Your task to perform on an android device: Search for vegetarian restaurants on Maps Image 0: 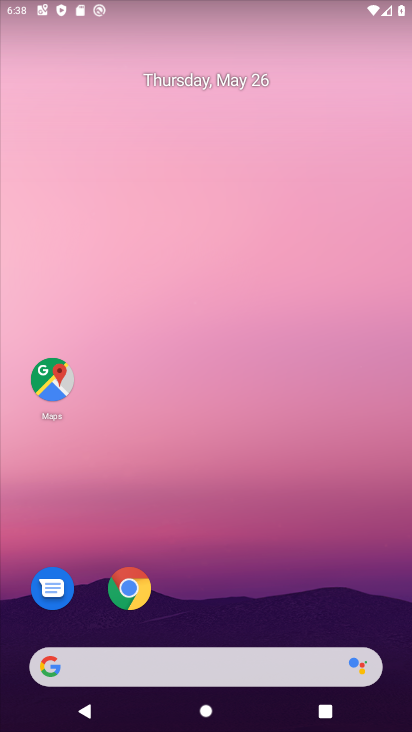
Step 0: drag from (335, 606) to (285, 15)
Your task to perform on an android device: Search for vegetarian restaurants on Maps Image 1: 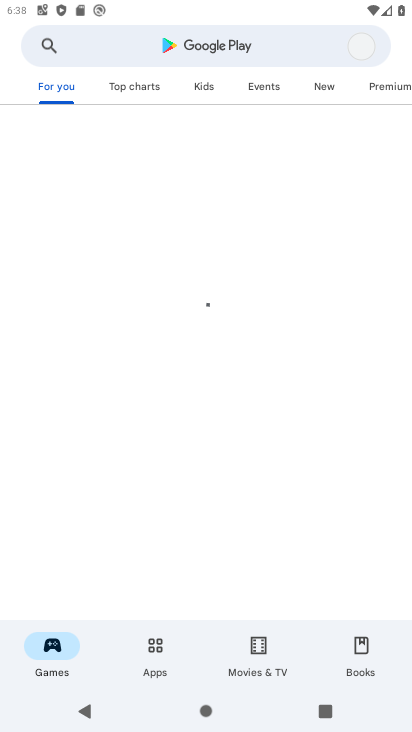
Step 1: press back button
Your task to perform on an android device: Search for vegetarian restaurants on Maps Image 2: 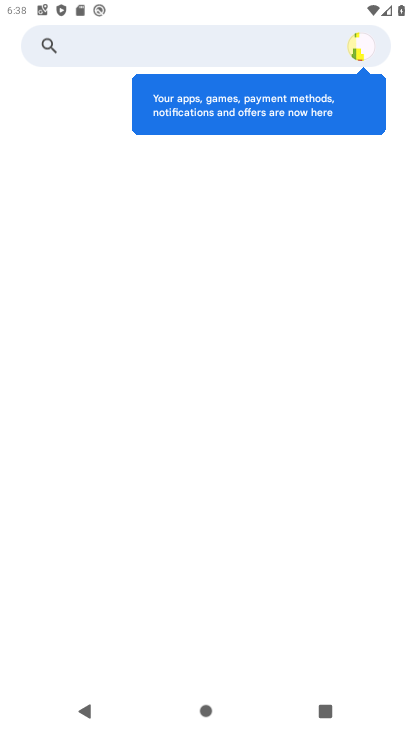
Step 2: press home button
Your task to perform on an android device: Search for vegetarian restaurants on Maps Image 3: 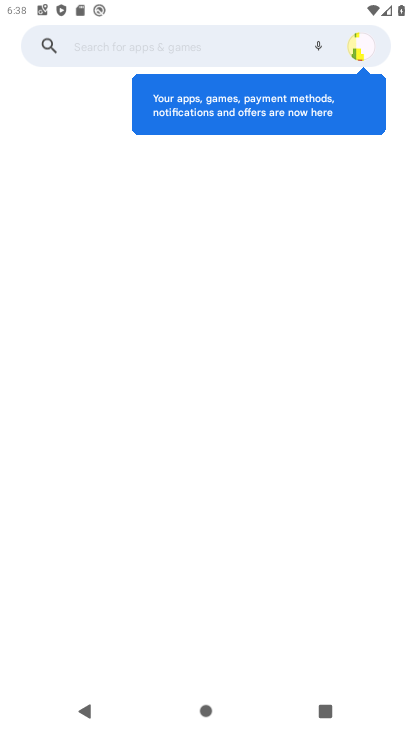
Step 3: drag from (355, 627) to (245, 8)
Your task to perform on an android device: Search for vegetarian restaurants on Maps Image 4: 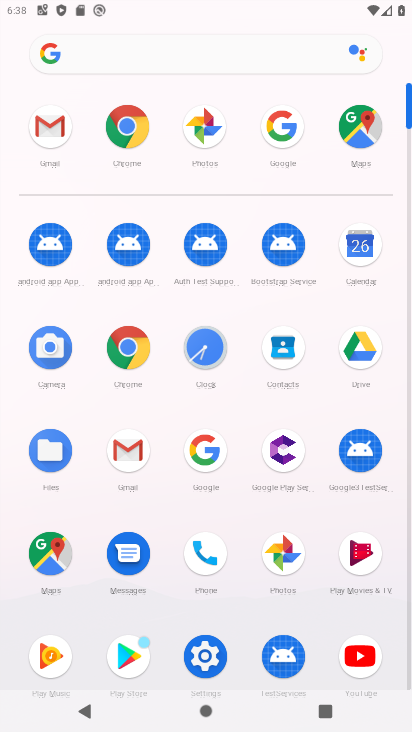
Step 4: click (368, 136)
Your task to perform on an android device: Search for vegetarian restaurants on Maps Image 5: 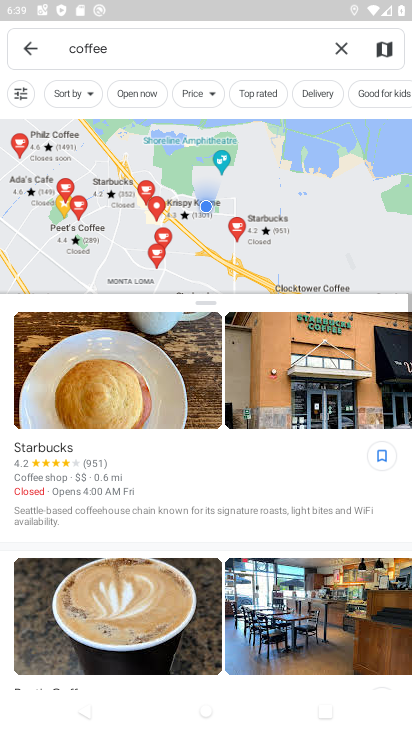
Step 5: click (341, 29)
Your task to perform on an android device: Search for vegetarian restaurants on Maps Image 6: 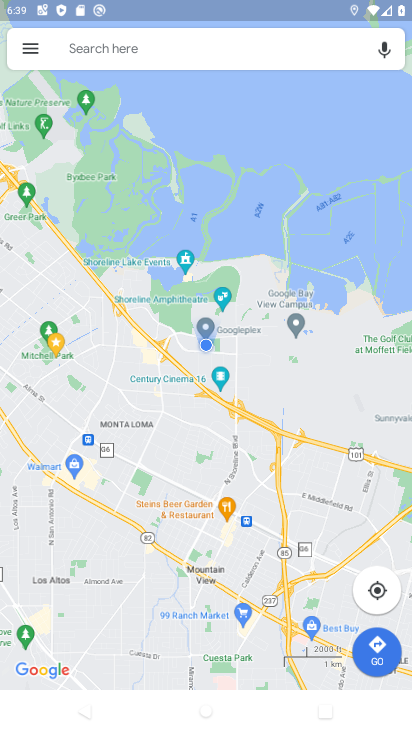
Step 6: click (149, 37)
Your task to perform on an android device: Search for vegetarian restaurants on Maps Image 7: 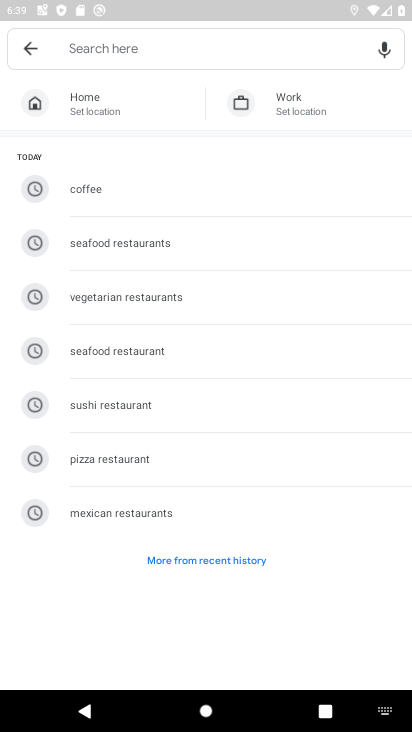
Step 7: click (143, 291)
Your task to perform on an android device: Search for vegetarian restaurants on Maps Image 8: 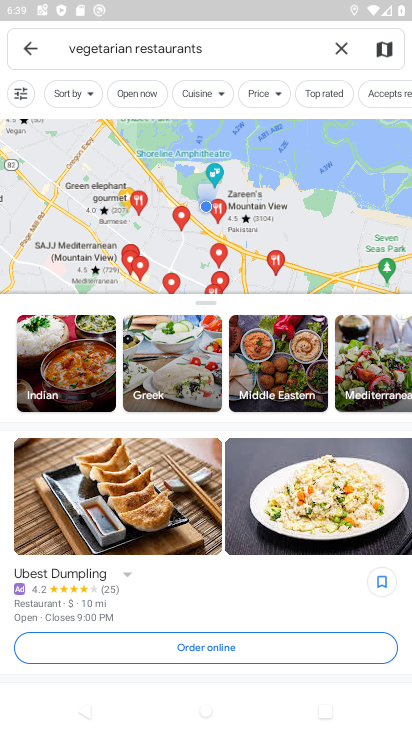
Step 8: task complete